Your task to perform on an android device: search for starred emails in the gmail app Image 0: 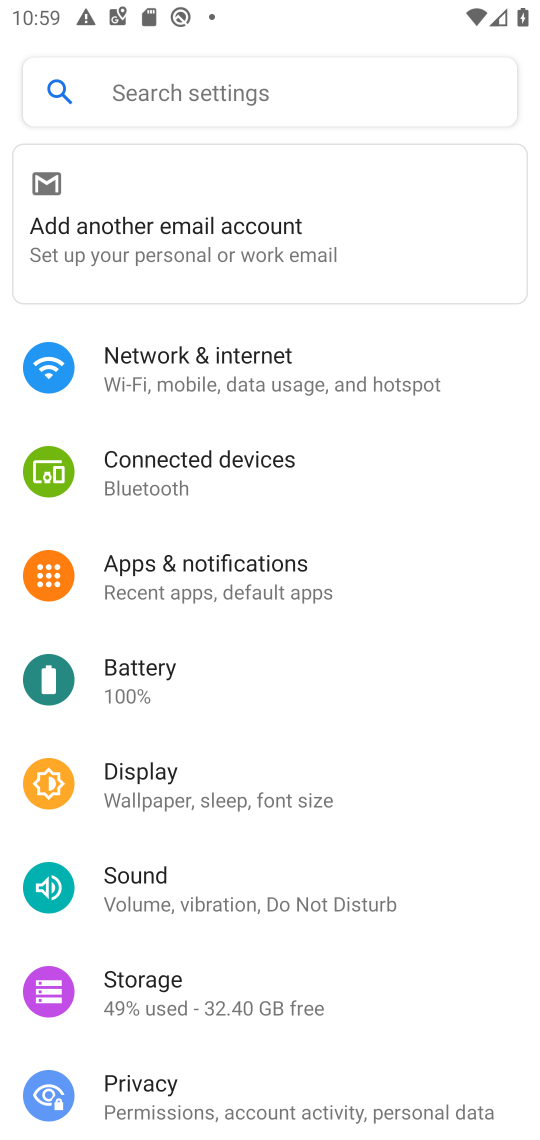
Step 0: click (497, 1038)
Your task to perform on an android device: search for starred emails in the gmail app Image 1: 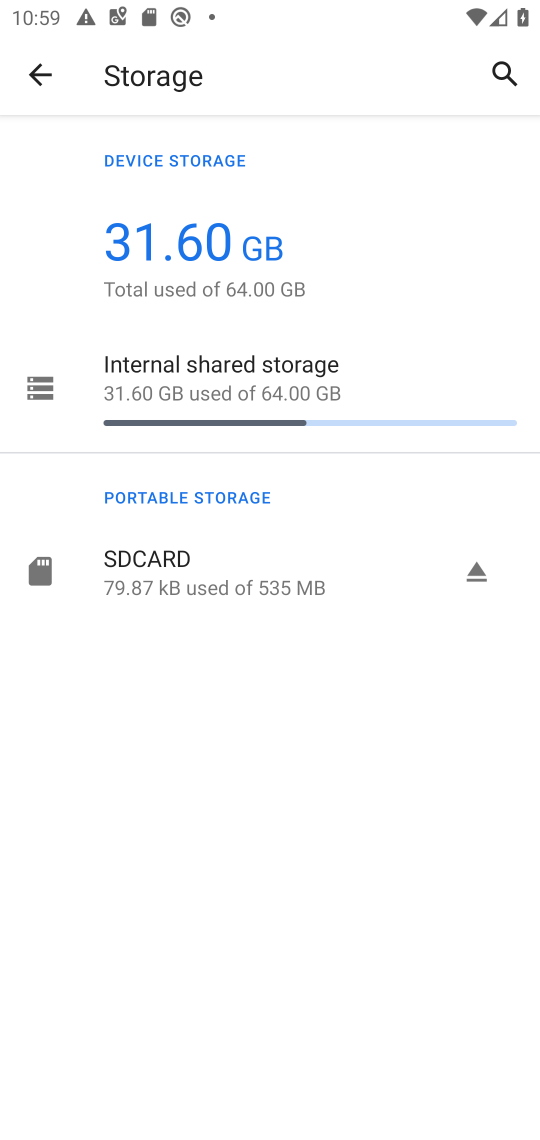
Step 1: press home button
Your task to perform on an android device: search for starred emails in the gmail app Image 2: 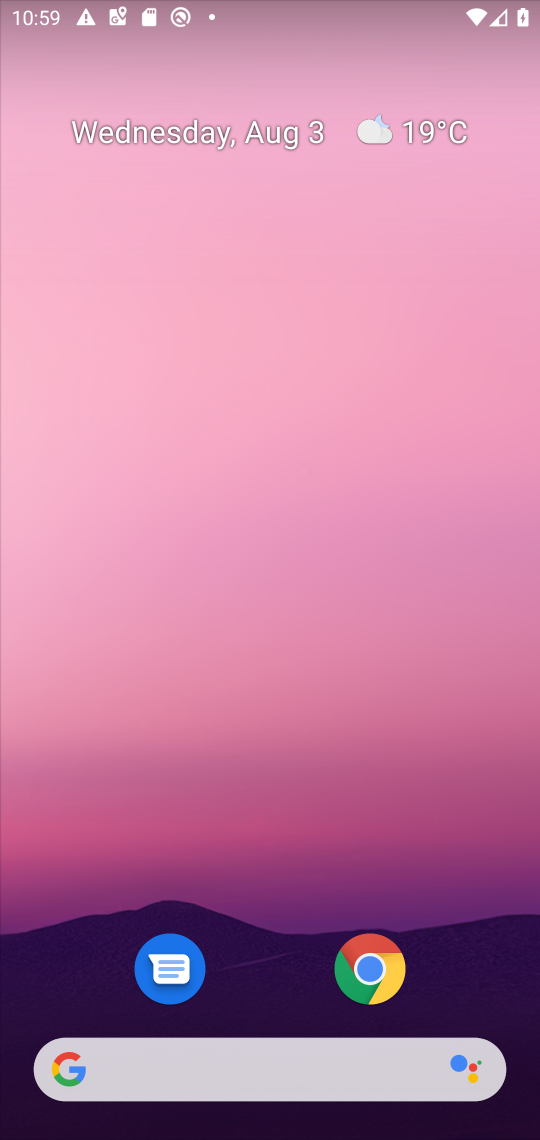
Step 2: drag from (225, 1020) to (290, 16)
Your task to perform on an android device: search for starred emails in the gmail app Image 3: 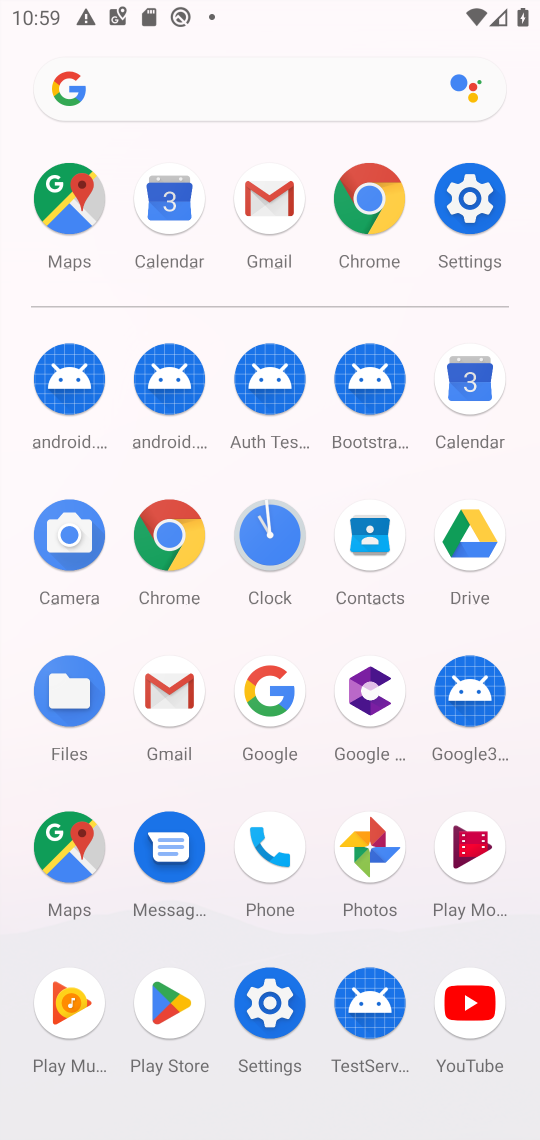
Step 3: click (162, 705)
Your task to perform on an android device: search for starred emails in the gmail app Image 4: 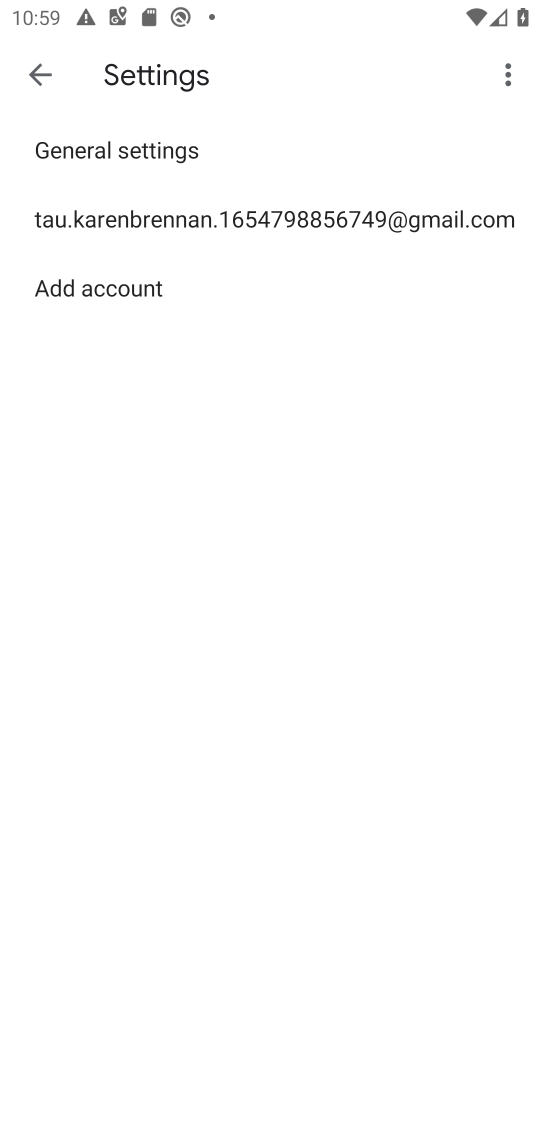
Step 4: click (75, 70)
Your task to perform on an android device: search for starred emails in the gmail app Image 5: 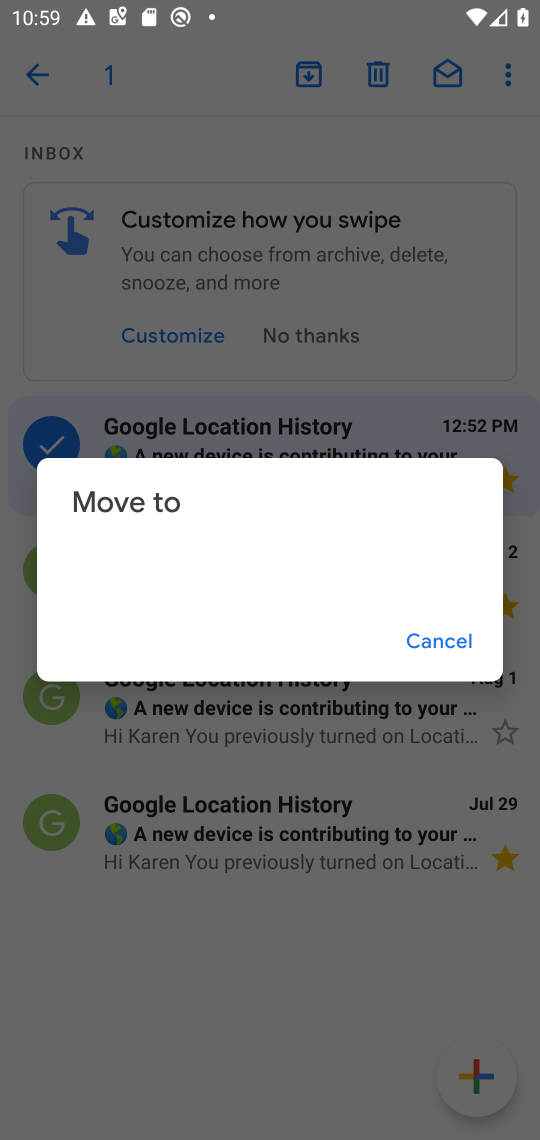
Step 5: click (430, 652)
Your task to perform on an android device: search for starred emails in the gmail app Image 6: 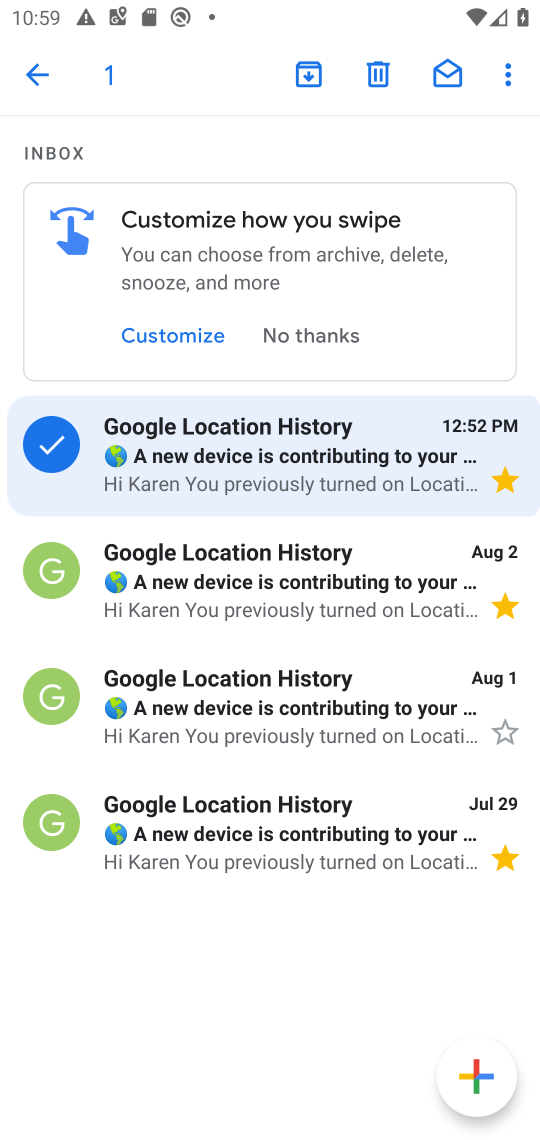
Step 6: click (44, 80)
Your task to perform on an android device: search for starred emails in the gmail app Image 7: 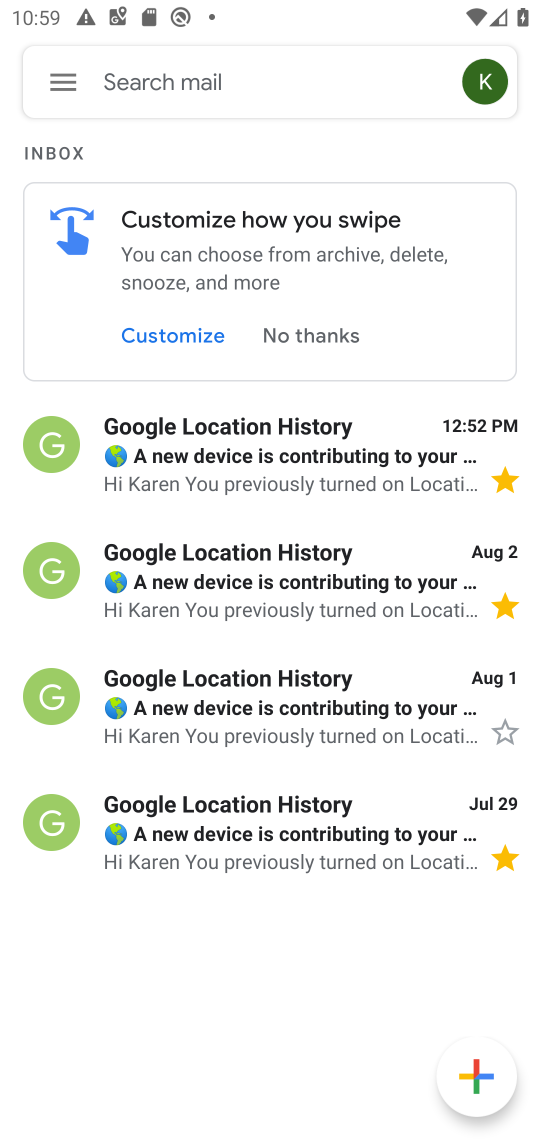
Step 7: click (52, 75)
Your task to perform on an android device: search for starred emails in the gmail app Image 8: 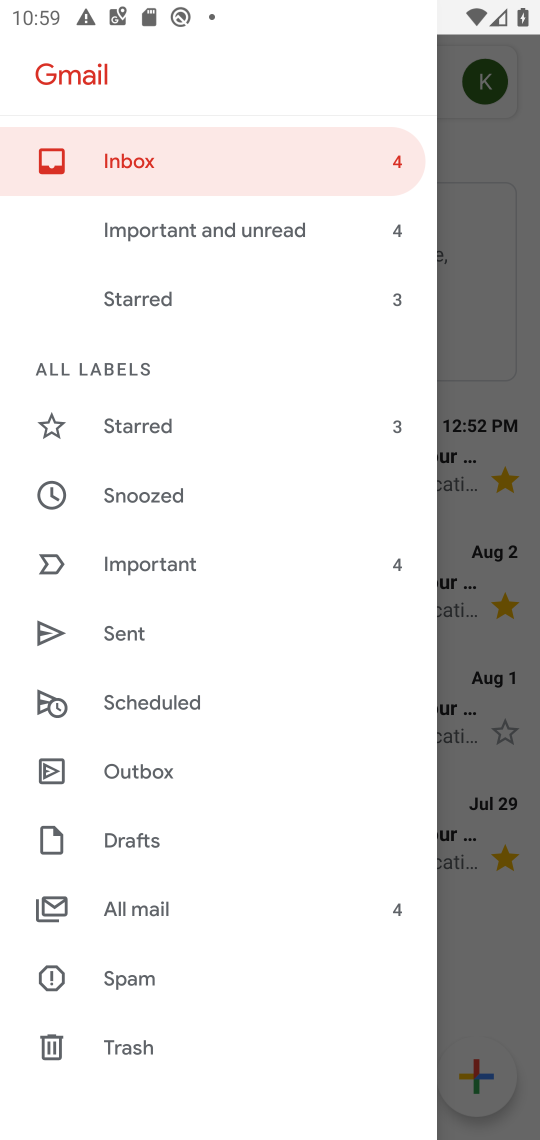
Step 8: click (154, 440)
Your task to perform on an android device: search for starred emails in the gmail app Image 9: 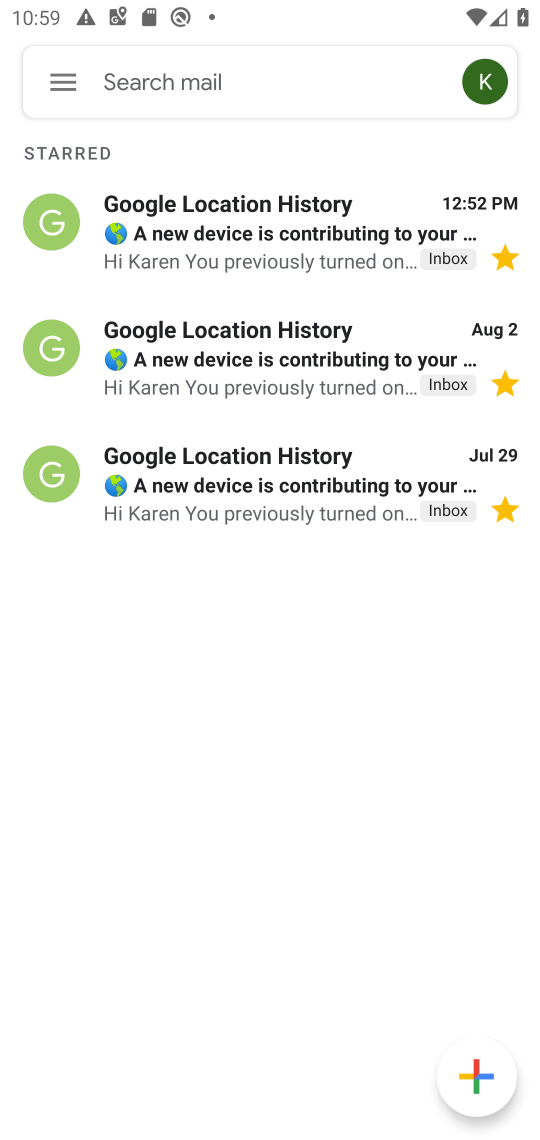
Step 9: task complete